Your task to perform on an android device: Open the calendar app, open the side menu, and click the "Day" option Image 0: 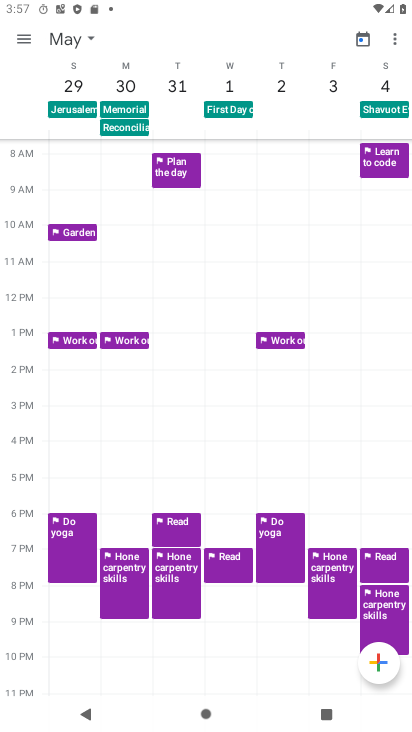
Step 0: press home button
Your task to perform on an android device: Open the calendar app, open the side menu, and click the "Day" option Image 1: 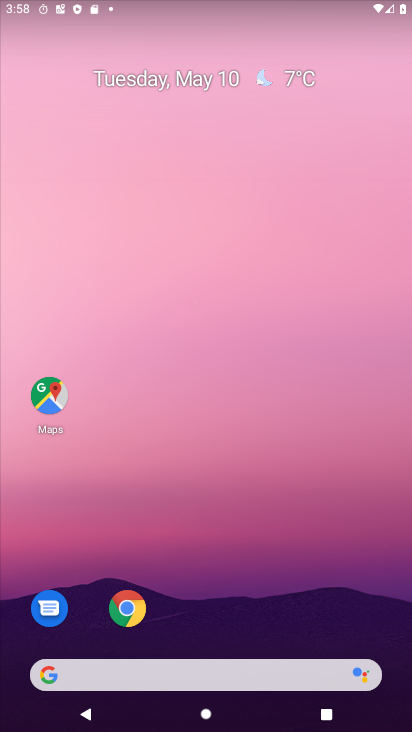
Step 1: drag from (358, 594) to (324, 13)
Your task to perform on an android device: Open the calendar app, open the side menu, and click the "Day" option Image 2: 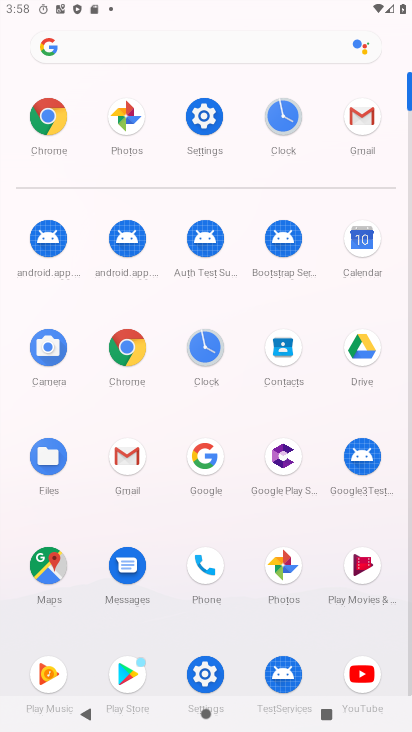
Step 2: click (359, 242)
Your task to perform on an android device: Open the calendar app, open the side menu, and click the "Day" option Image 3: 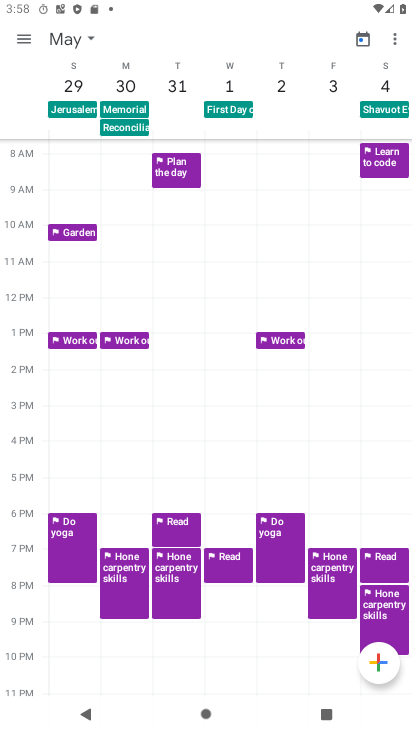
Step 3: click (23, 44)
Your task to perform on an android device: Open the calendar app, open the side menu, and click the "Day" option Image 4: 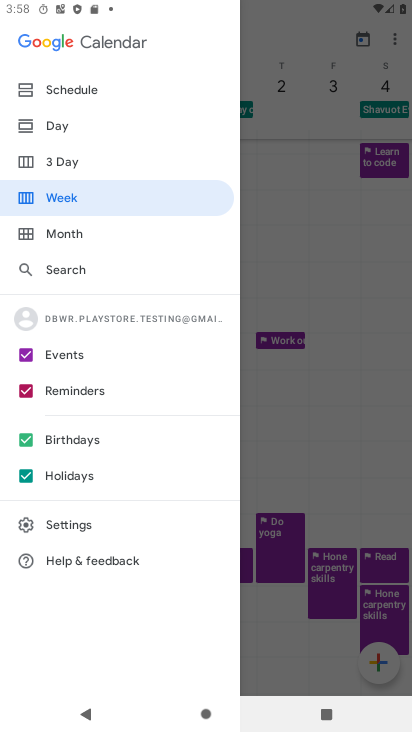
Step 4: click (51, 123)
Your task to perform on an android device: Open the calendar app, open the side menu, and click the "Day" option Image 5: 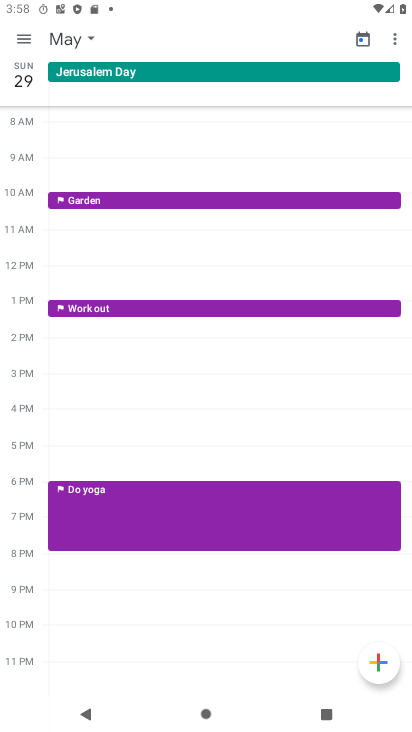
Step 5: task complete